Your task to perform on an android device: Go to Reddit.com Image 0: 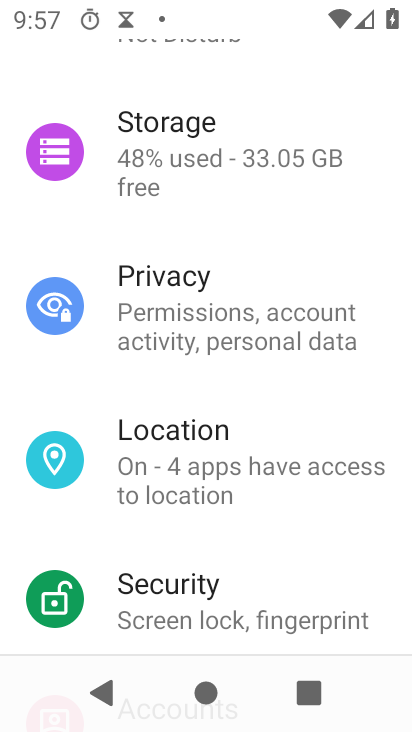
Step 0: press home button
Your task to perform on an android device: Go to Reddit.com Image 1: 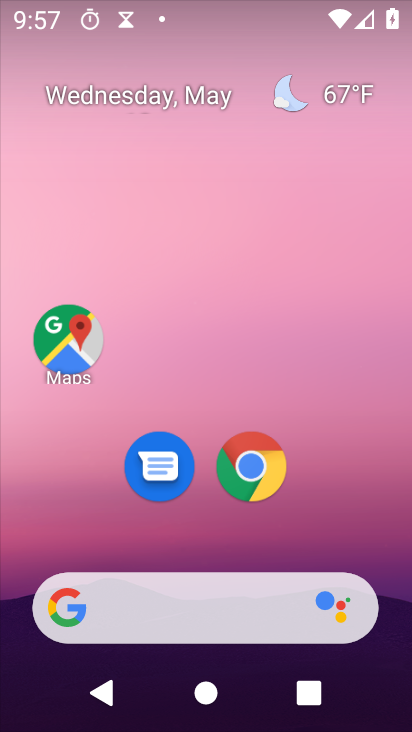
Step 1: click (234, 471)
Your task to perform on an android device: Go to Reddit.com Image 2: 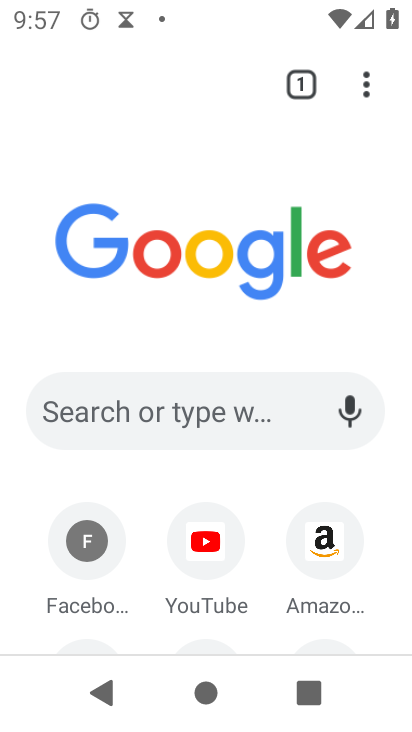
Step 2: click (193, 409)
Your task to perform on an android device: Go to Reddit.com Image 3: 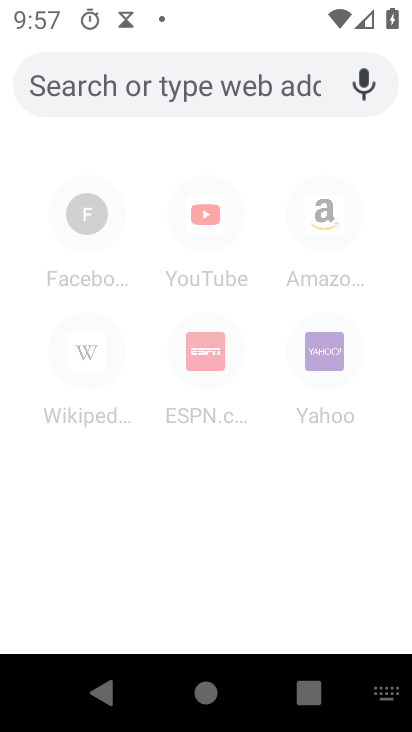
Step 3: type "www.reddit.com"
Your task to perform on an android device: Go to Reddit.com Image 4: 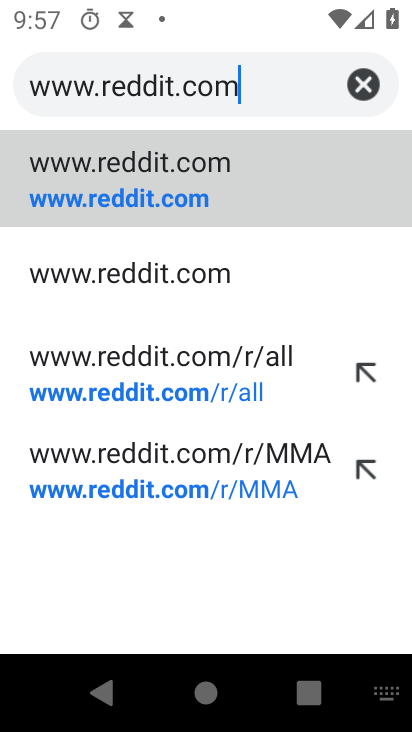
Step 4: click (113, 207)
Your task to perform on an android device: Go to Reddit.com Image 5: 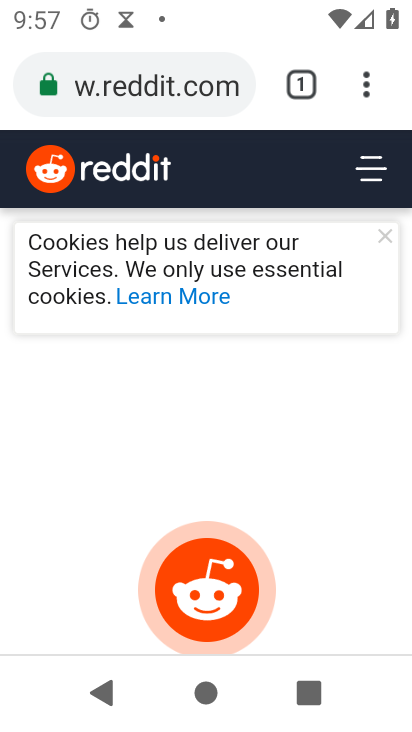
Step 5: task complete